Your task to perform on an android device: Do I have any events tomorrow? Image 0: 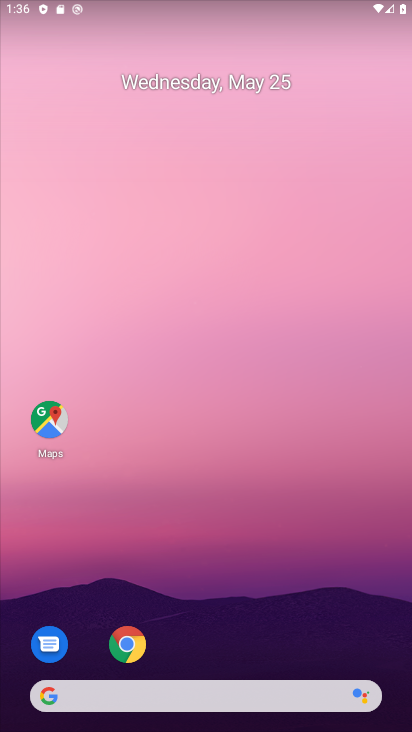
Step 0: drag from (280, 604) to (342, 245)
Your task to perform on an android device: Do I have any events tomorrow? Image 1: 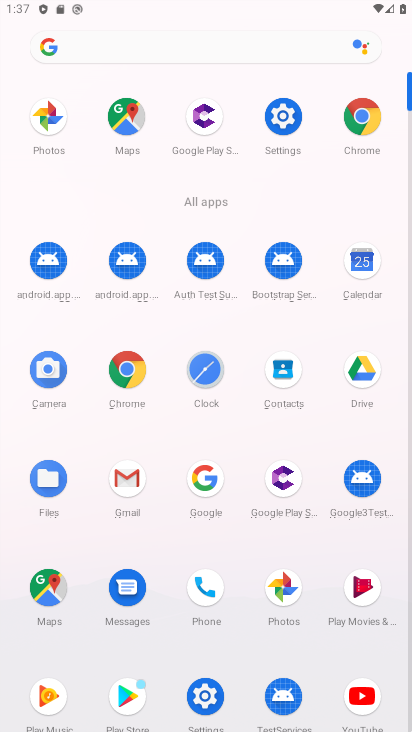
Step 1: click (370, 281)
Your task to perform on an android device: Do I have any events tomorrow? Image 2: 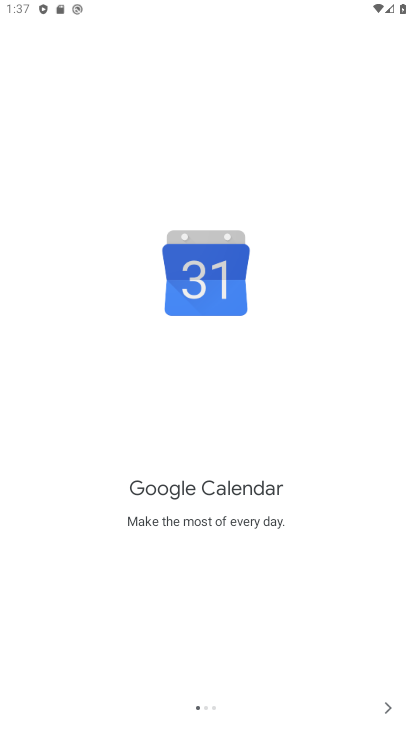
Step 2: click (374, 707)
Your task to perform on an android device: Do I have any events tomorrow? Image 3: 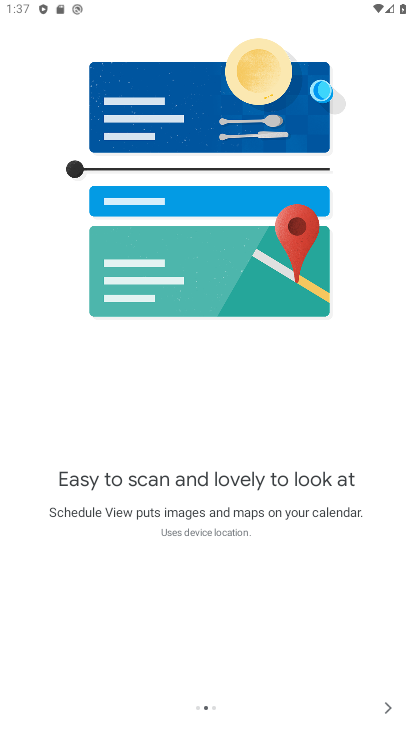
Step 3: click (380, 707)
Your task to perform on an android device: Do I have any events tomorrow? Image 4: 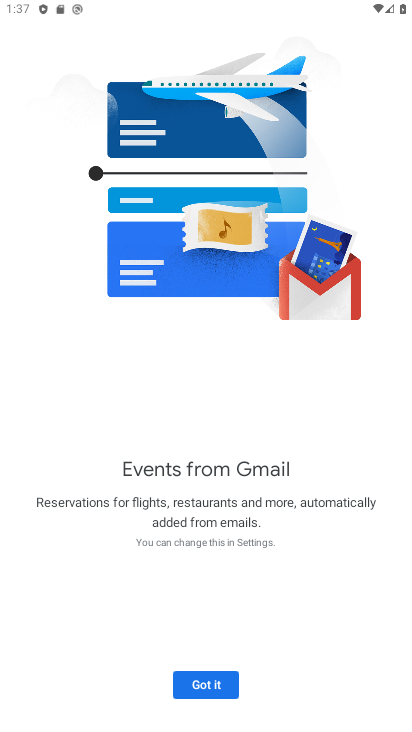
Step 4: click (210, 696)
Your task to perform on an android device: Do I have any events tomorrow? Image 5: 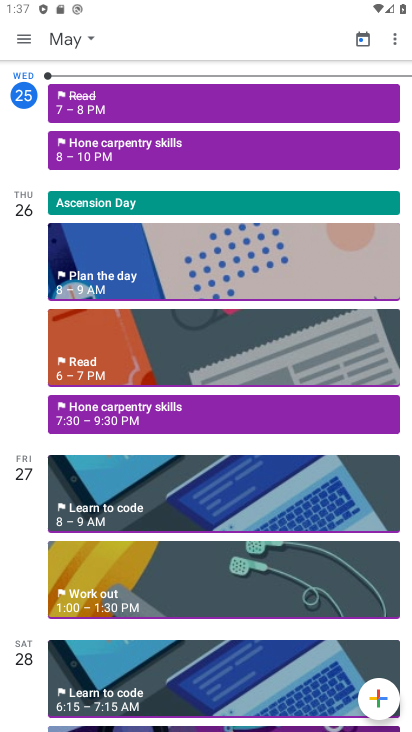
Step 5: click (163, 255)
Your task to perform on an android device: Do I have any events tomorrow? Image 6: 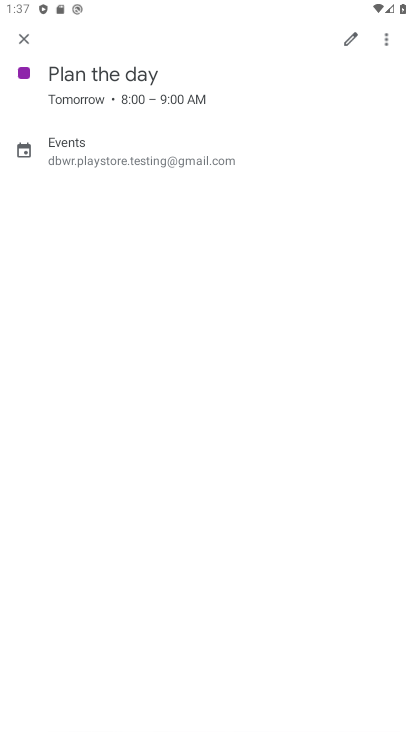
Step 6: task complete